Your task to perform on an android device: Toggle the flashlight Image 0: 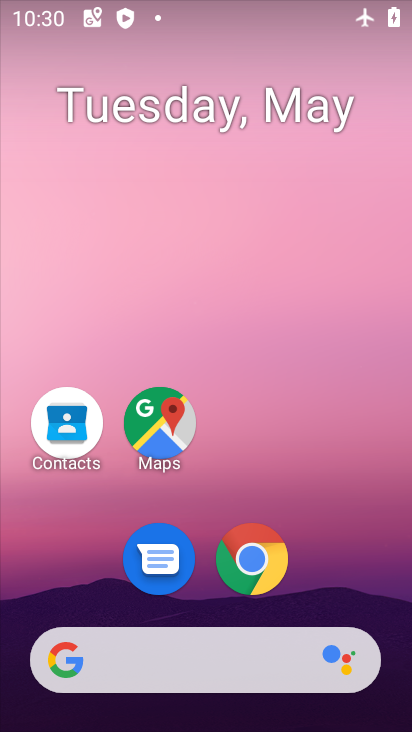
Step 0: drag from (350, 574) to (371, 162)
Your task to perform on an android device: Toggle the flashlight Image 1: 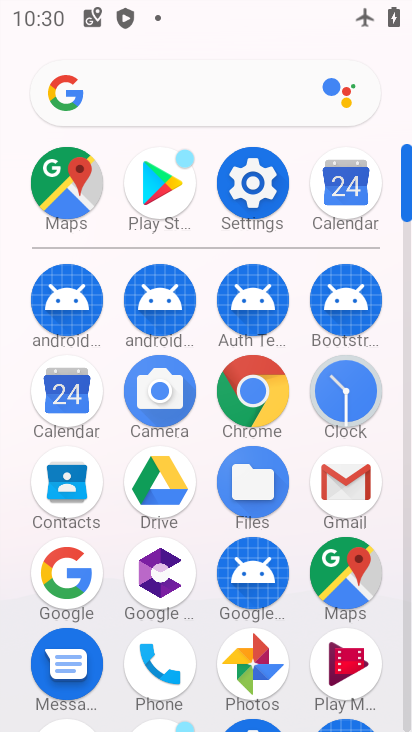
Step 1: click (253, 218)
Your task to perform on an android device: Toggle the flashlight Image 2: 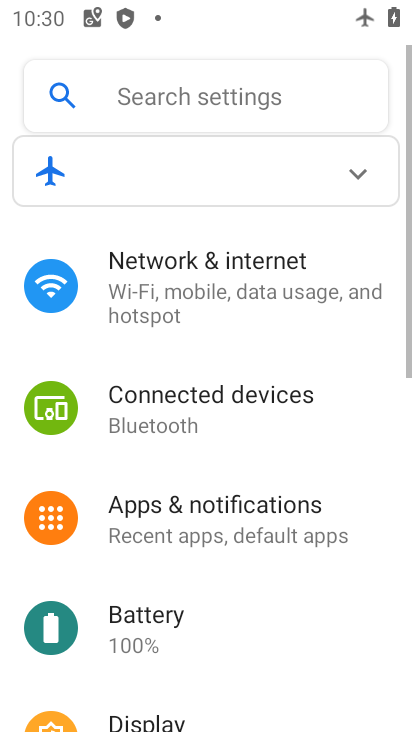
Step 2: task complete